Your task to perform on an android device: turn on improve location accuracy Image 0: 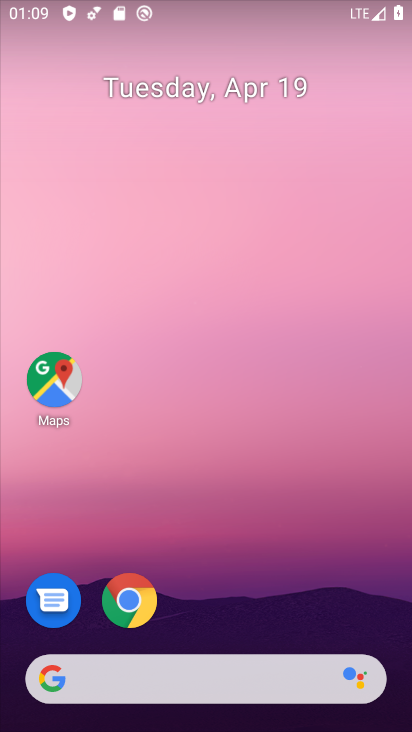
Step 0: drag from (237, 644) to (202, 2)
Your task to perform on an android device: turn on improve location accuracy Image 1: 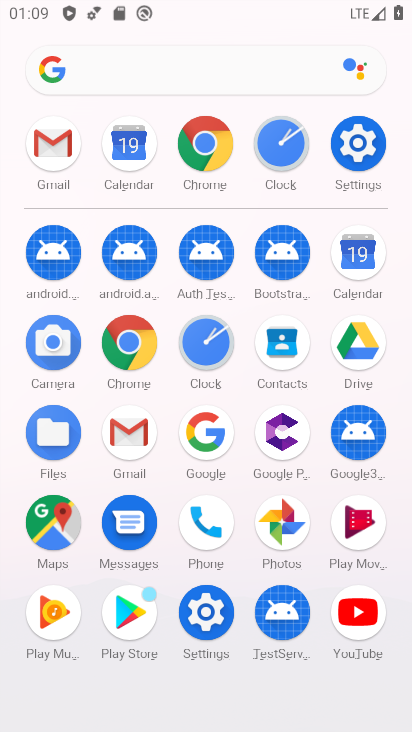
Step 1: click (369, 158)
Your task to perform on an android device: turn on improve location accuracy Image 2: 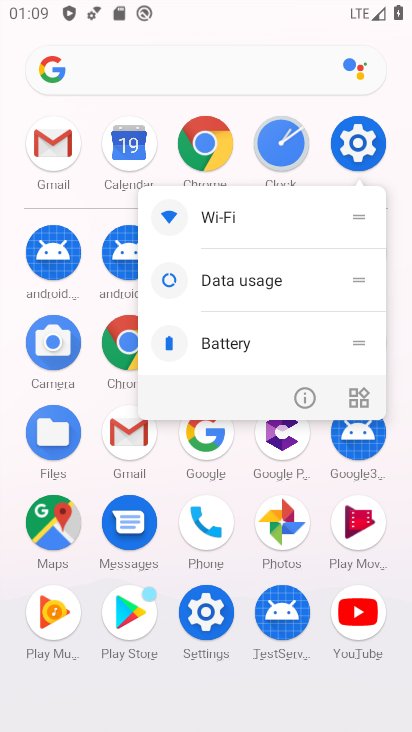
Step 2: click (363, 138)
Your task to perform on an android device: turn on improve location accuracy Image 3: 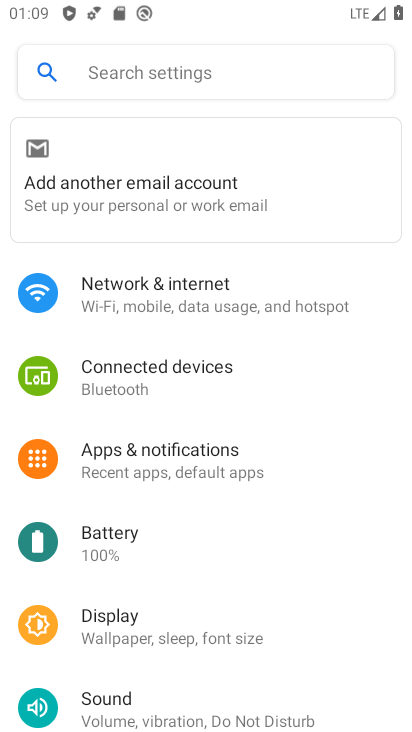
Step 3: drag from (188, 611) to (137, 163)
Your task to perform on an android device: turn on improve location accuracy Image 4: 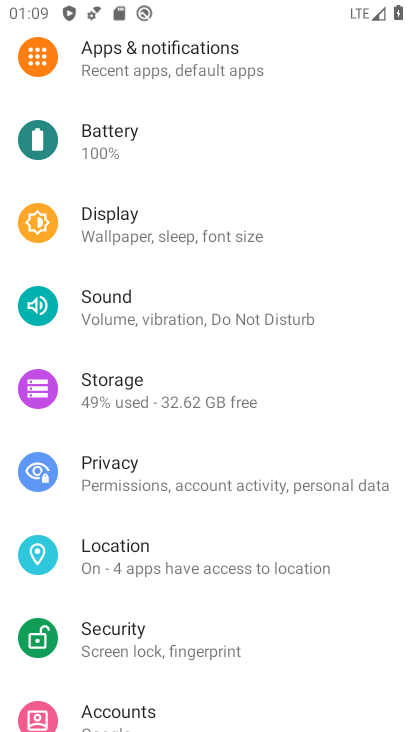
Step 4: click (133, 536)
Your task to perform on an android device: turn on improve location accuracy Image 5: 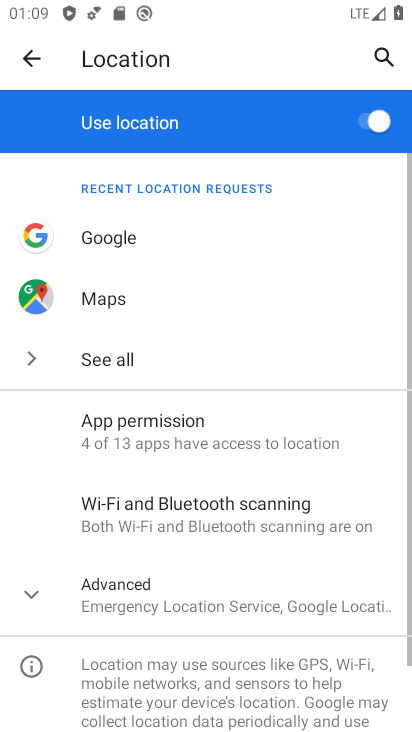
Step 5: click (125, 602)
Your task to perform on an android device: turn on improve location accuracy Image 6: 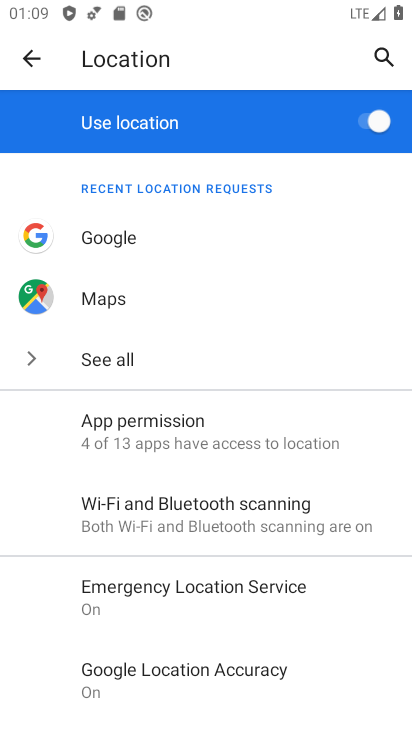
Step 6: click (216, 667)
Your task to perform on an android device: turn on improve location accuracy Image 7: 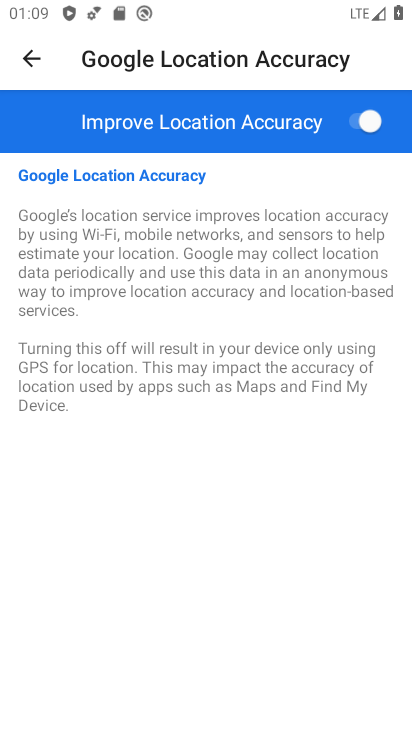
Step 7: task complete